Your task to perform on an android device: Open the stopwatch Image 0: 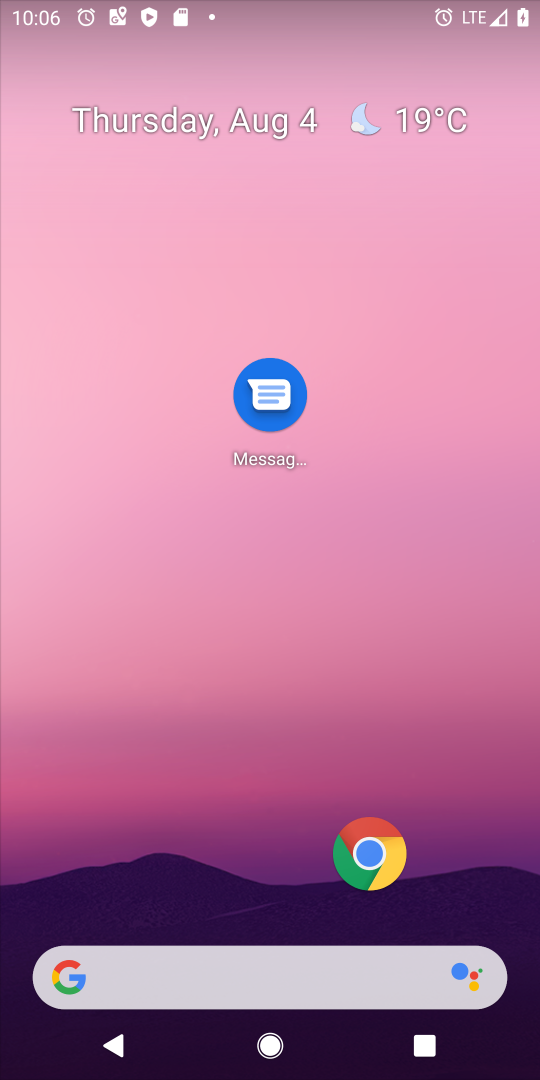
Step 0: press home button
Your task to perform on an android device: Open the stopwatch Image 1: 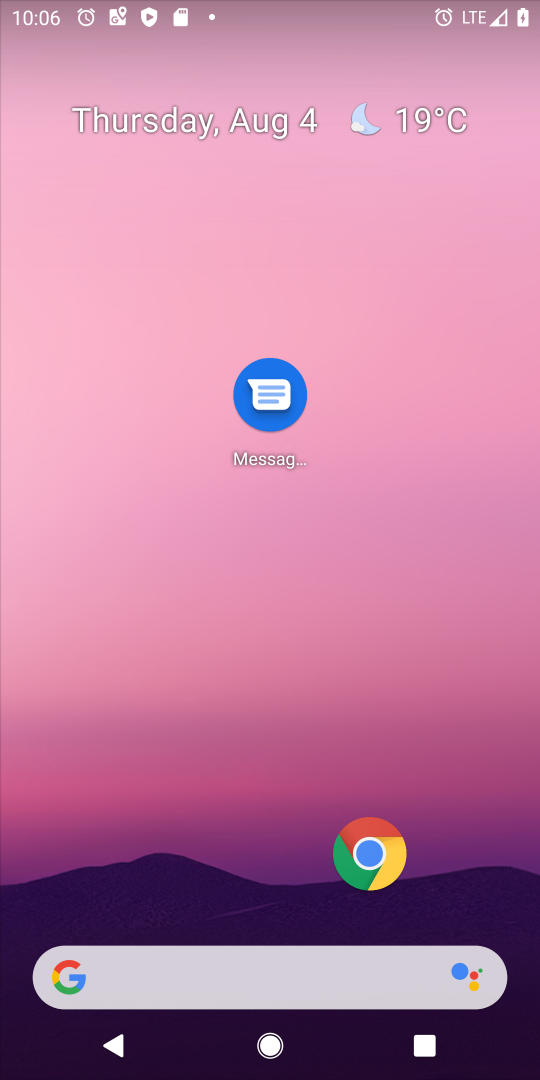
Step 1: drag from (205, 712) to (222, 332)
Your task to perform on an android device: Open the stopwatch Image 2: 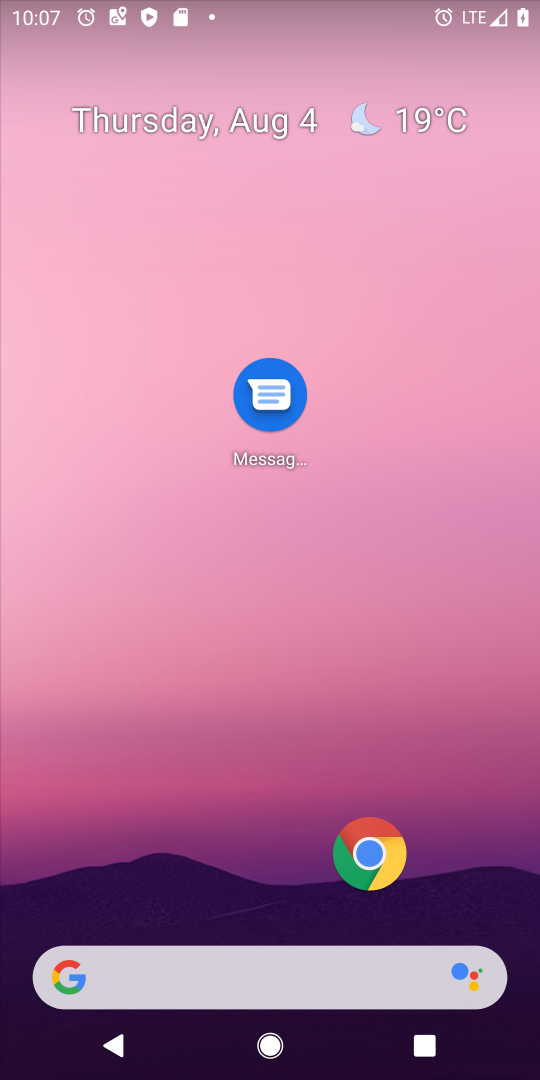
Step 2: drag from (186, 899) to (186, 567)
Your task to perform on an android device: Open the stopwatch Image 3: 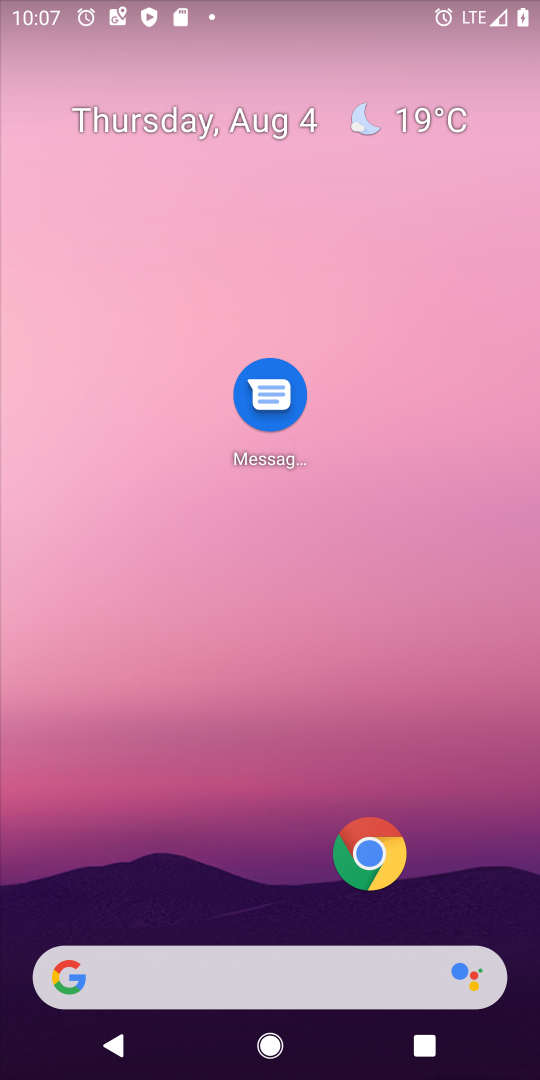
Step 3: click (254, 473)
Your task to perform on an android device: Open the stopwatch Image 4: 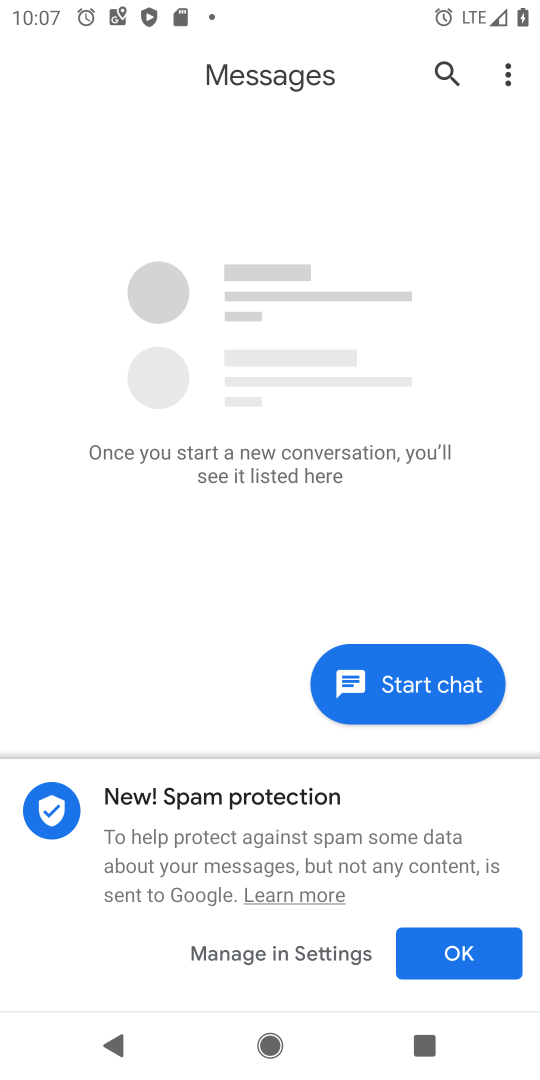
Step 4: press home button
Your task to perform on an android device: Open the stopwatch Image 5: 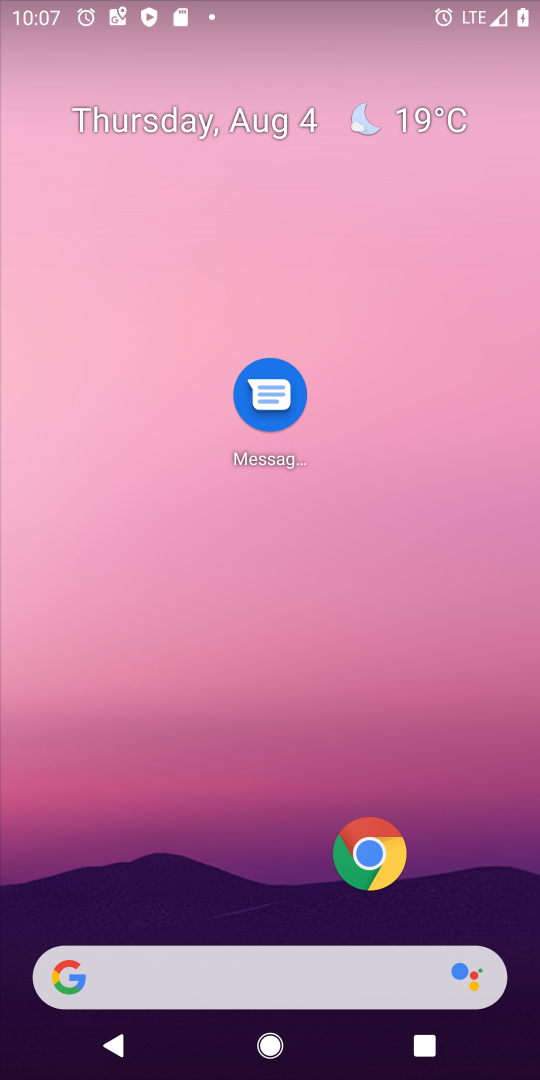
Step 5: drag from (169, 880) to (181, 476)
Your task to perform on an android device: Open the stopwatch Image 6: 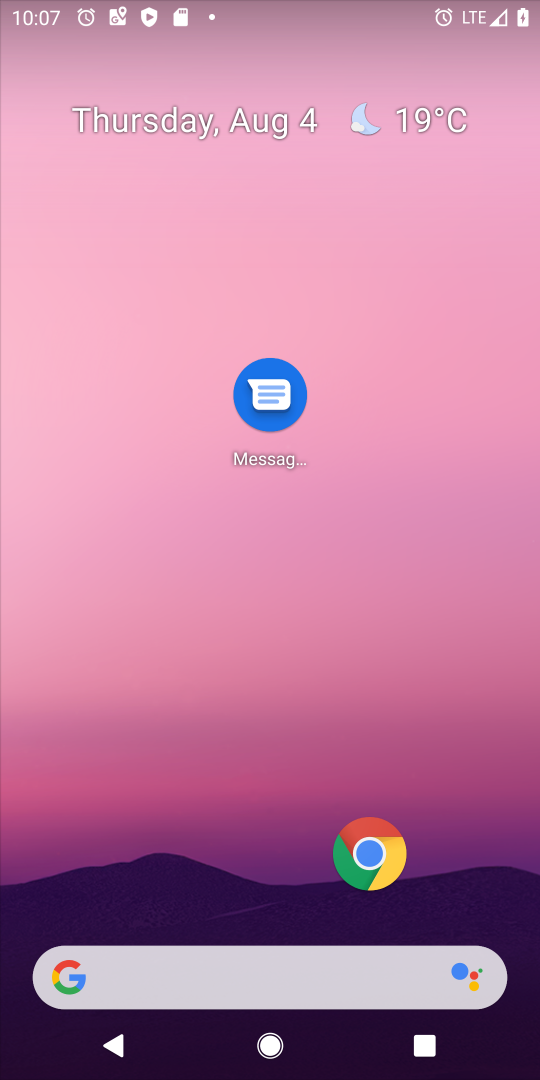
Step 6: drag from (276, 884) to (276, 470)
Your task to perform on an android device: Open the stopwatch Image 7: 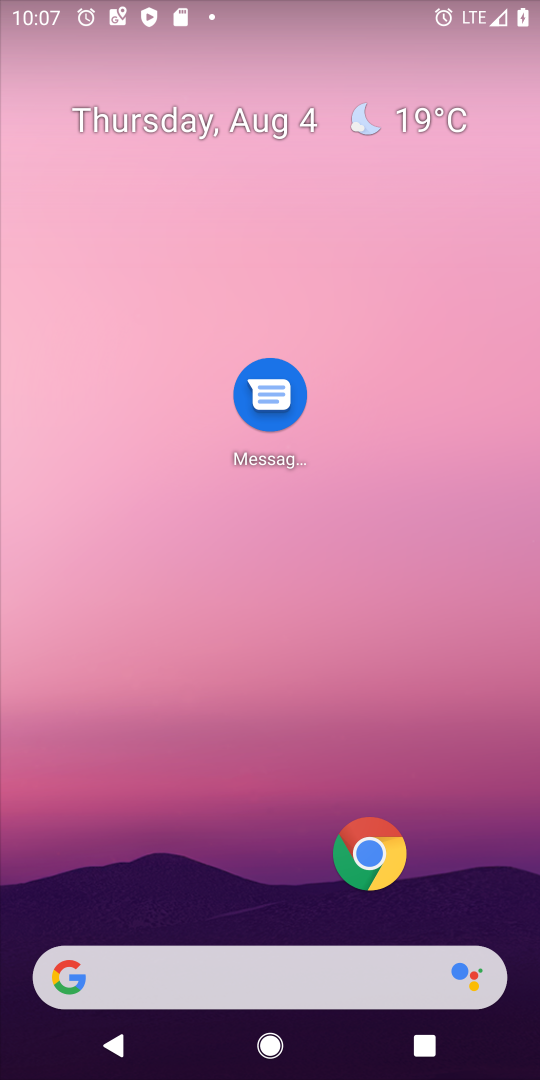
Step 7: drag from (216, 943) to (216, 363)
Your task to perform on an android device: Open the stopwatch Image 8: 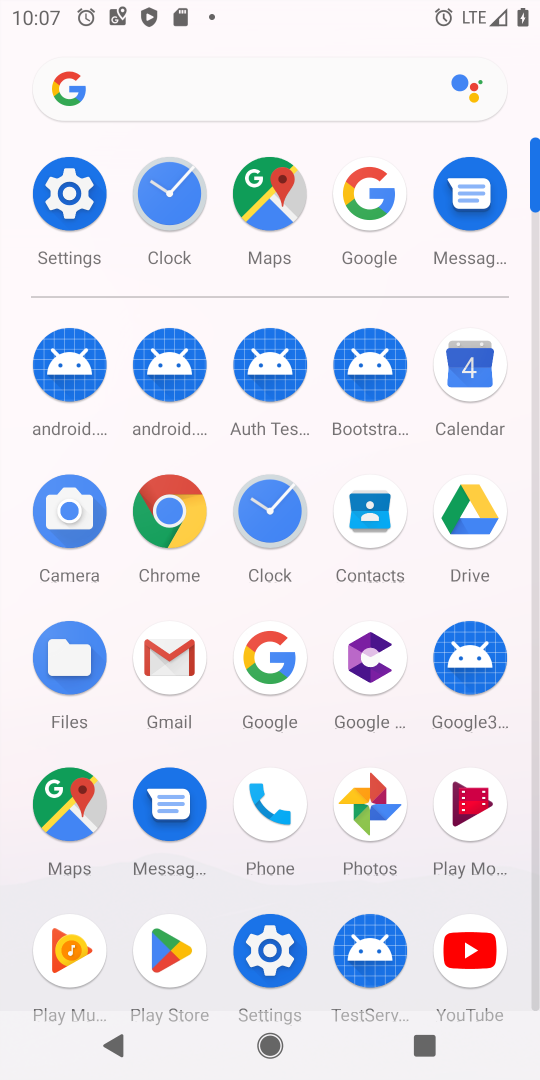
Step 8: click (279, 524)
Your task to perform on an android device: Open the stopwatch Image 9: 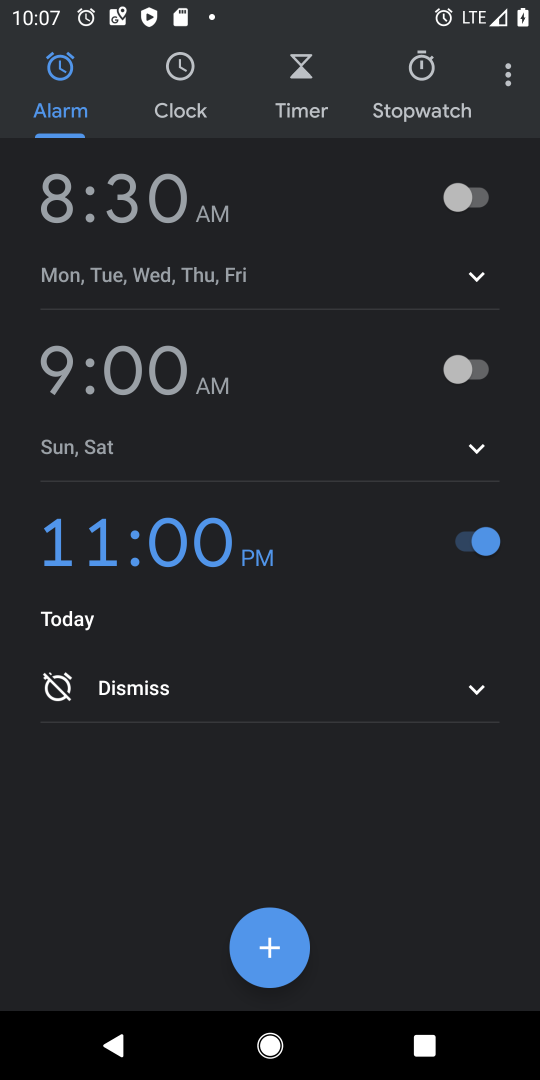
Step 9: click (431, 107)
Your task to perform on an android device: Open the stopwatch Image 10: 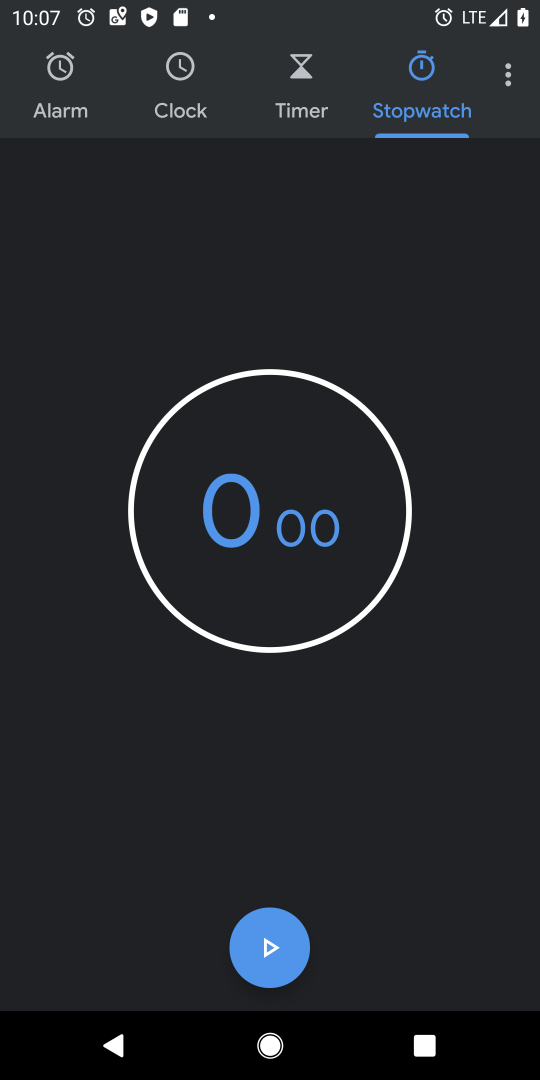
Step 10: task complete